Your task to perform on an android device: change the clock style Image 0: 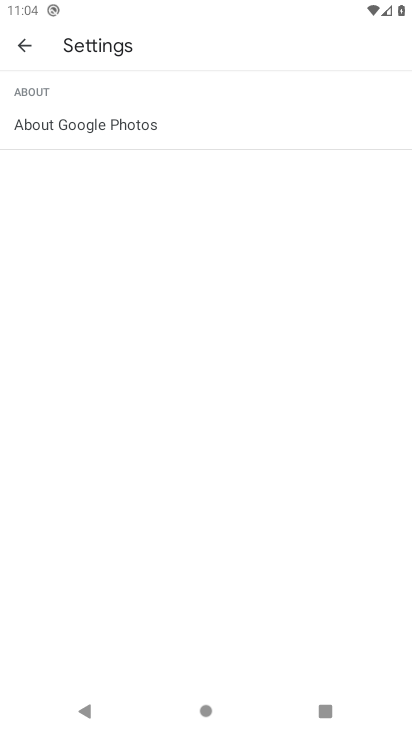
Step 0: press home button
Your task to perform on an android device: change the clock style Image 1: 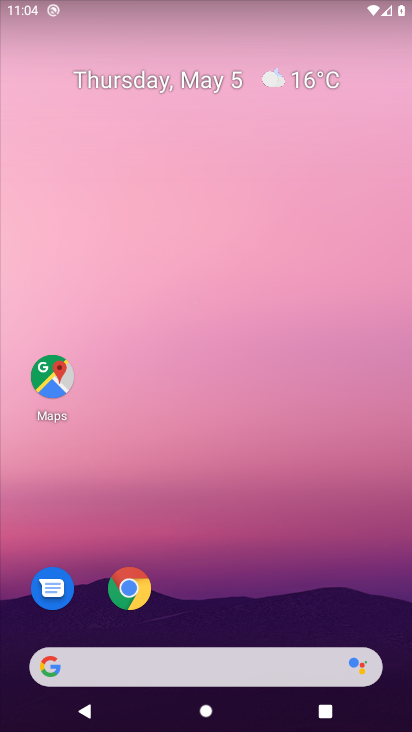
Step 1: drag from (228, 621) to (181, 137)
Your task to perform on an android device: change the clock style Image 2: 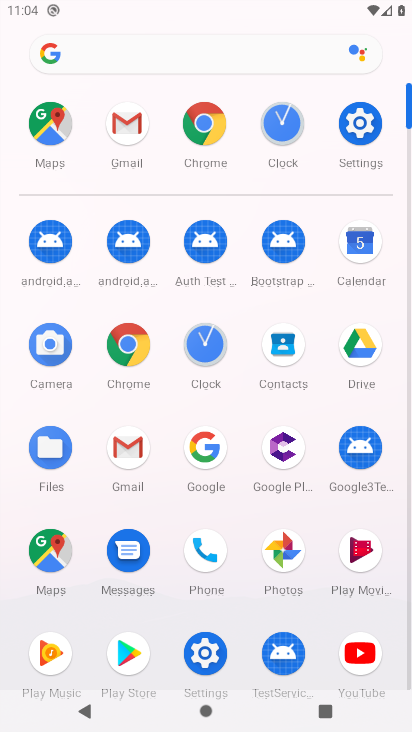
Step 2: click (205, 358)
Your task to perform on an android device: change the clock style Image 3: 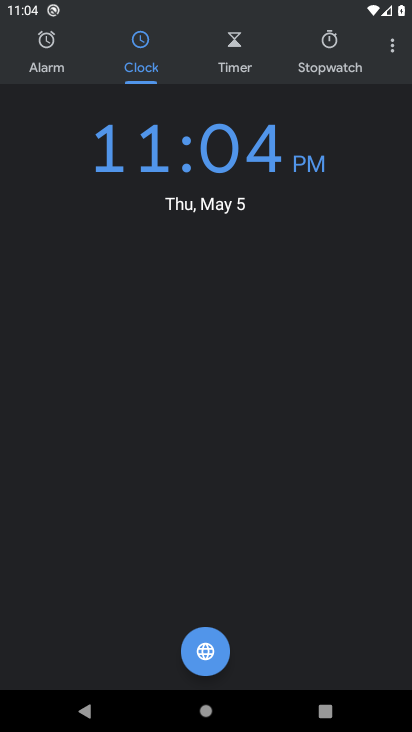
Step 3: click (396, 59)
Your task to perform on an android device: change the clock style Image 4: 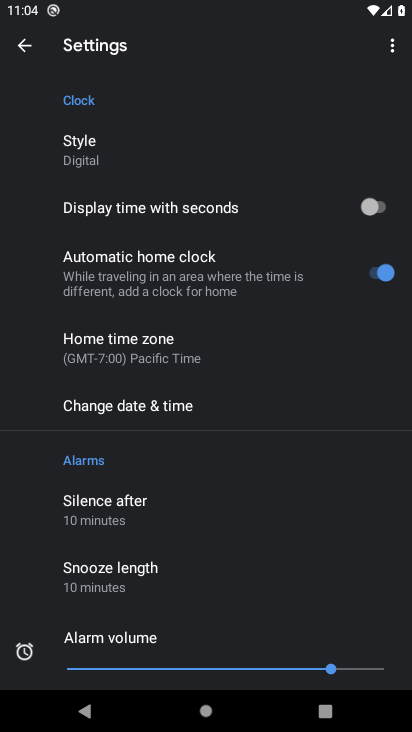
Step 4: click (198, 146)
Your task to perform on an android device: change the clock style Image 5: 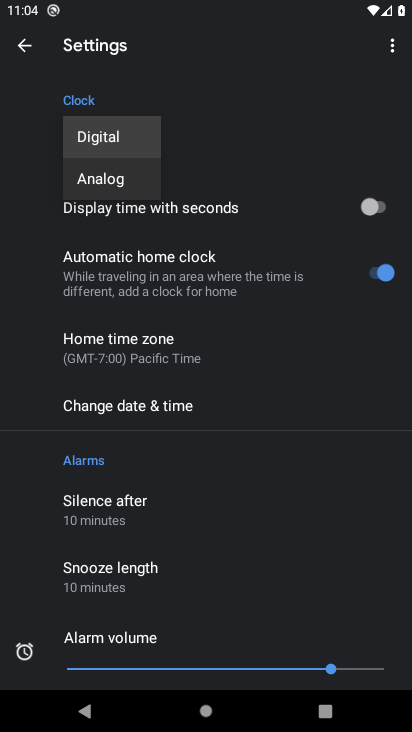
Step 5: click (152, 184)
Your task to perform on an android device: change the clock style Image 6: 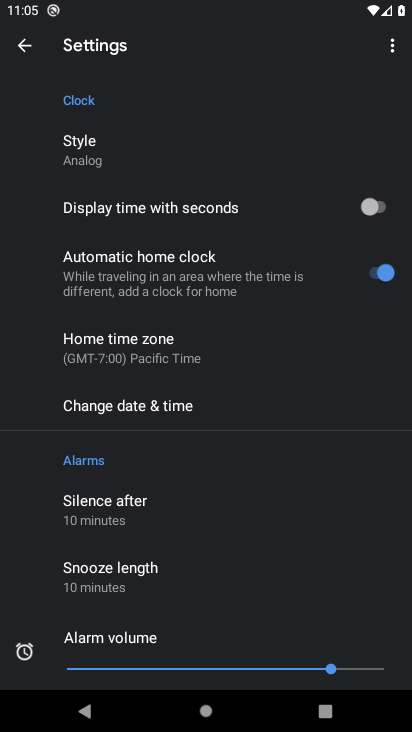
Step 6: task complete